Your task to perform on an android device: turn on improve location accuracy Image 0: 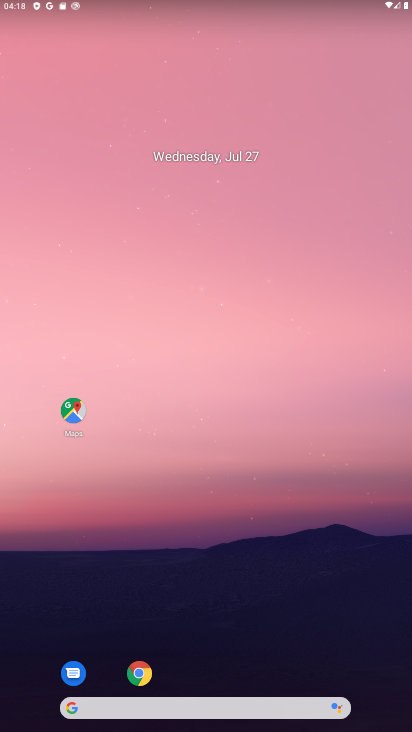
Step 0: drag from (362, 655) to (311, 194)
Your task to perform on an android device: turn on improve location accuracy Image 1: 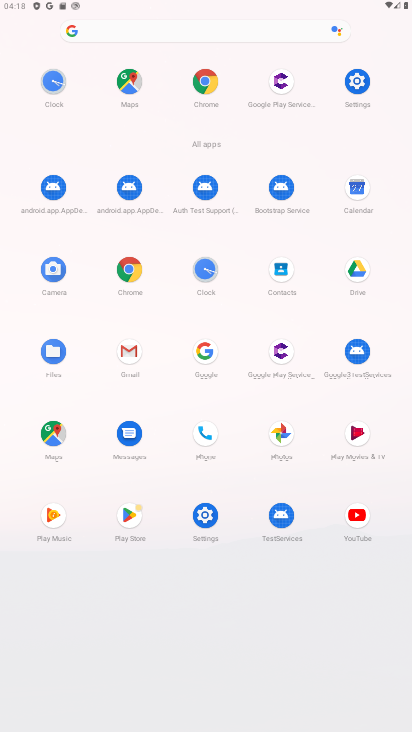
Step 1: click (205, 515)
Your task to perform on an android device: turn on improve location accuracy Image 2: 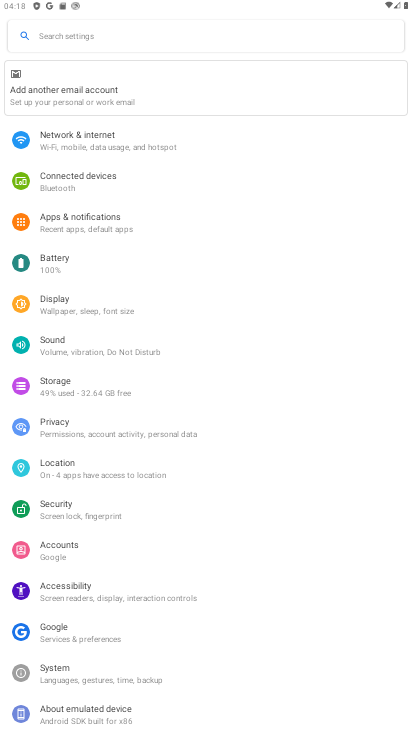
Step 2: click (66, 457)
Your task to perform on an android device: turn on improve location accuracy Image 3: 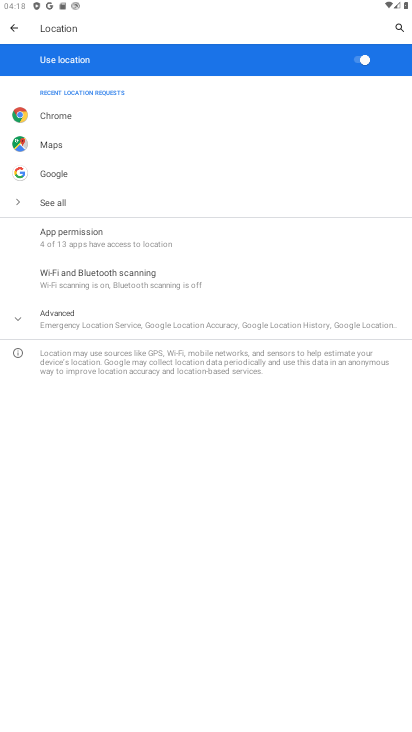
Step 3: click (21, 324)
Your task to perform on an android device: turn on improve location accuracy Image 4: 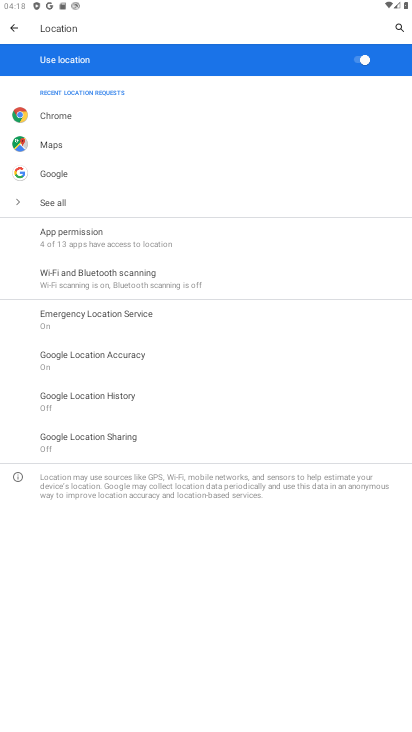
Step 4: click (87, 357)
Your task to perform on an android device: turn on improve location accuracy Image 5: 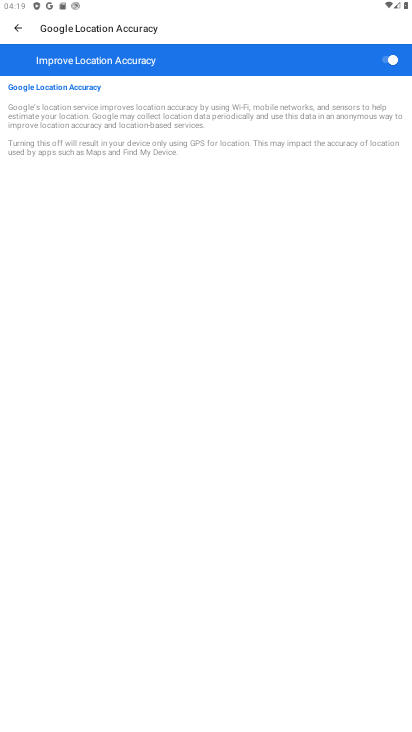
Step 5: task complete